Your task to perform on an android device: set an alarm Image 0: 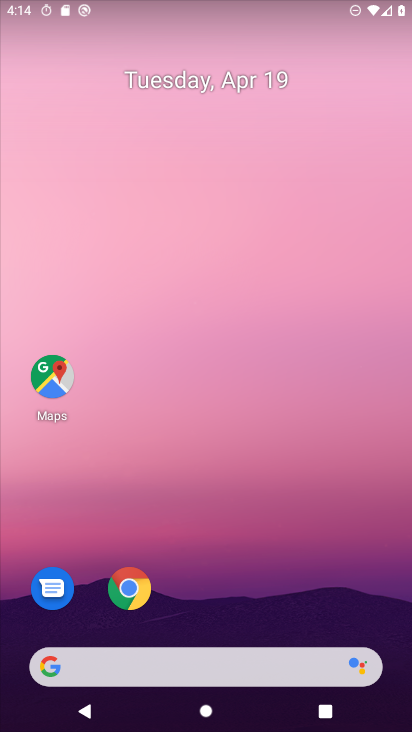
Step 0: drag from (210, 554) to (231, 47)
Your task to perform on an android device: set an alarm Image 1: 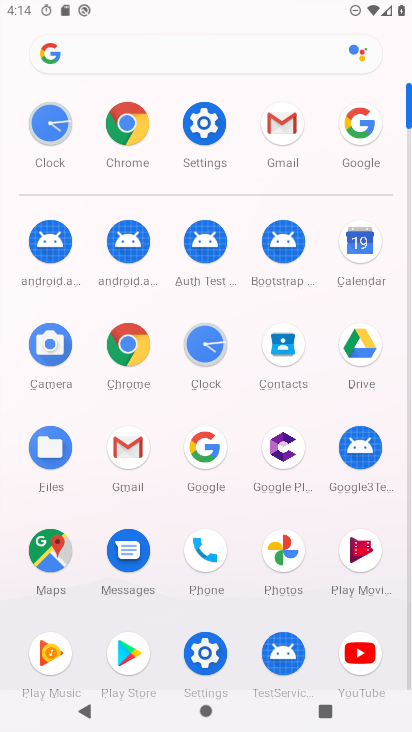
Step 1: click (45, 129)
Your task to perform on an android device: set an alarm Image 2: 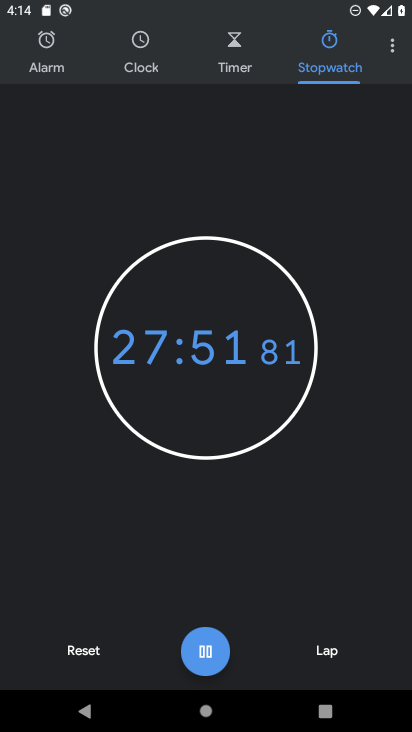
Step 2: click (54, 53)
Your task to perform on an android device: set an alarm Image 3: 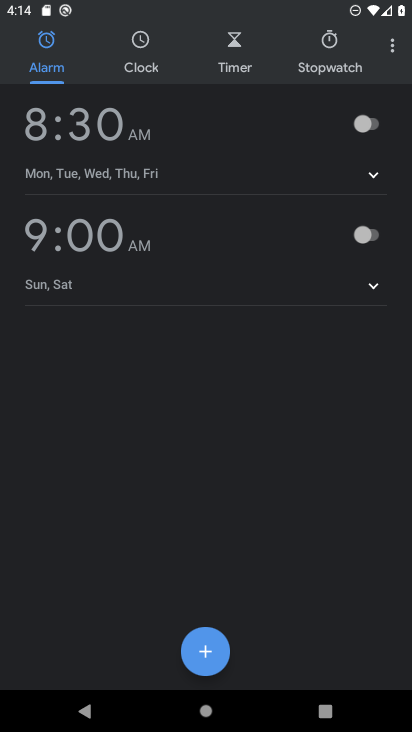
Step 3: click (359, 123)
Your task to perform on an android device: set an alarm Image 4: 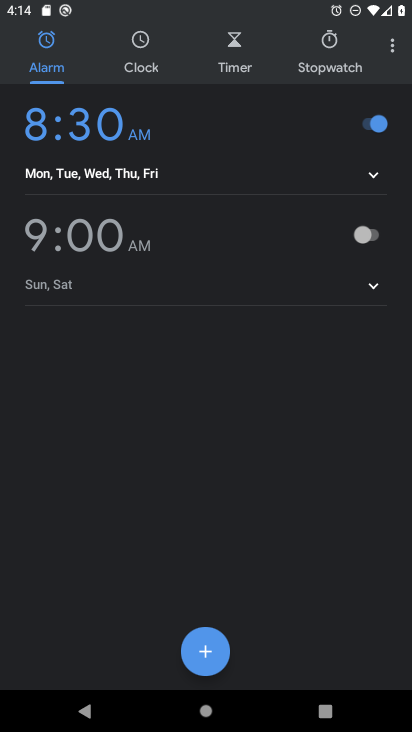
Step 4: task complete